Your task to perform on an android device: open sync settings in chrome Image 0: 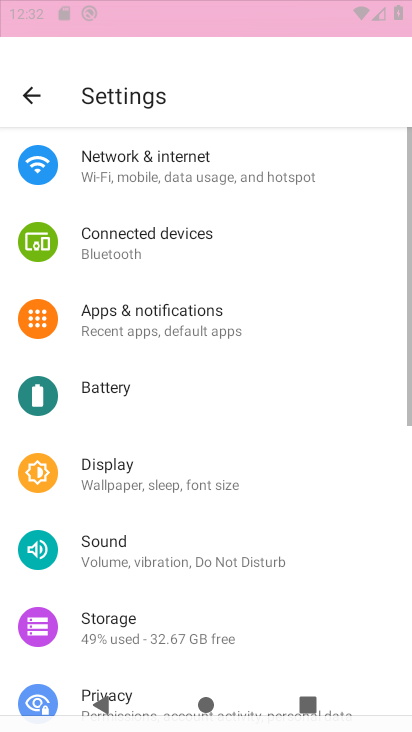
Step 0: drag from (297, 144) to (299, 102)
Your task to perform on an android device: open sync settings in chrome Image 1: 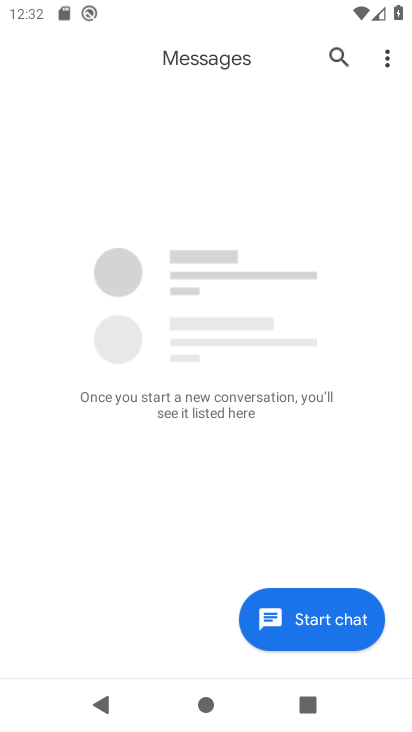
Step 1: press home button
Your task to perform on an android device: open sync settings in chrome Image 2: 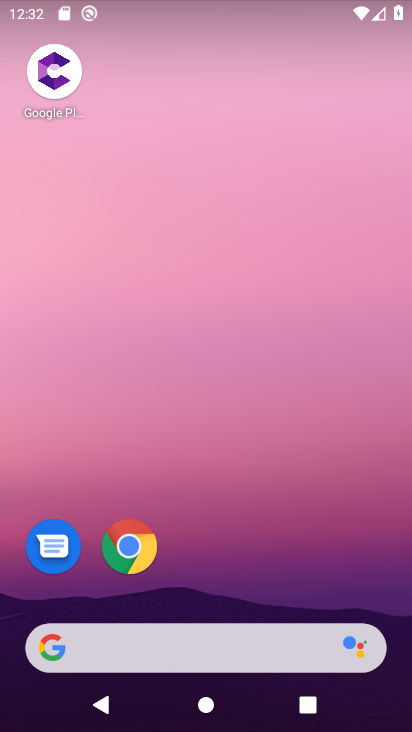
Step 2: drag from (326, 500) to (240, 86)
Your task to perform on an android device: open sync settings in chrome Image 3: 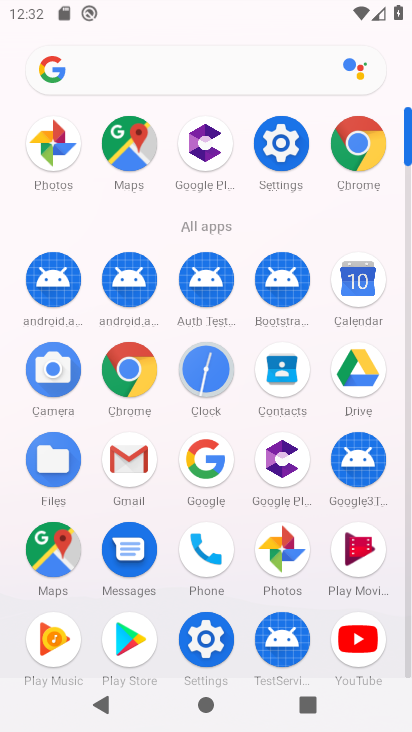
Step 3: click (346, 159)
Your task to perform on an android device: open sync settings in chrome Image 4: 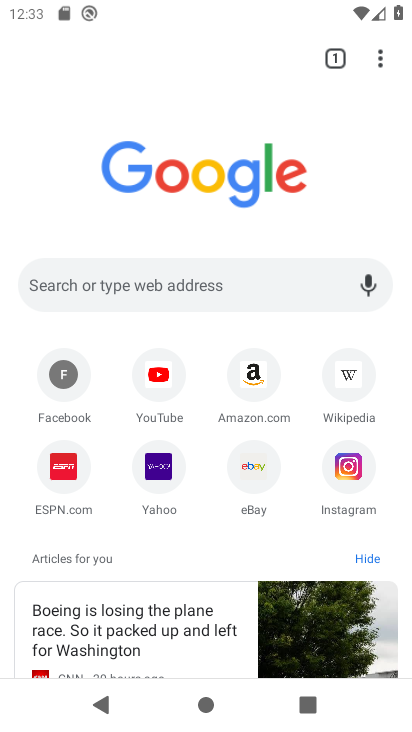
Step 4: drag from (385, 51) to (222, 482)
Your task to perform on an android device: open sync settings in chrome Image 5: 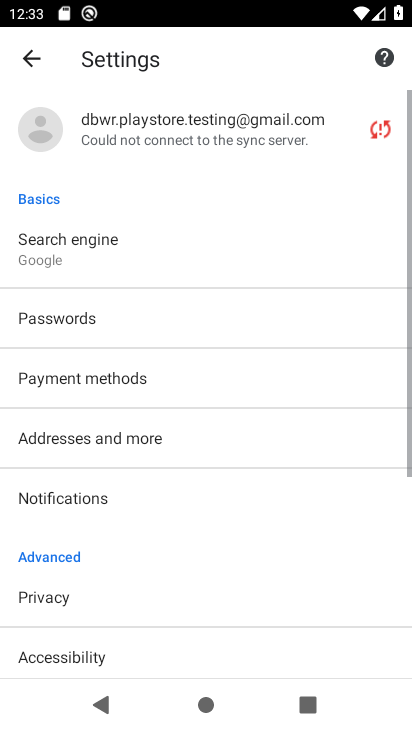
Step 5: click (70, 117)
Your task to perform on an android device: open sync settings in chrome Image 6: 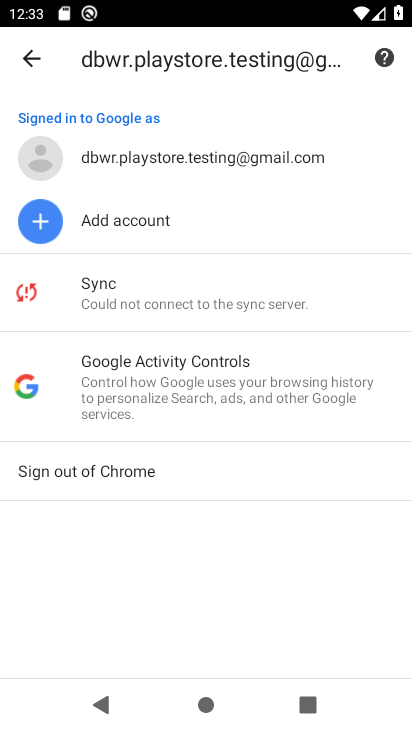
Step 6: click (183, 278)
Your task to perform on an android device: open sync settings in chrome Image 7: 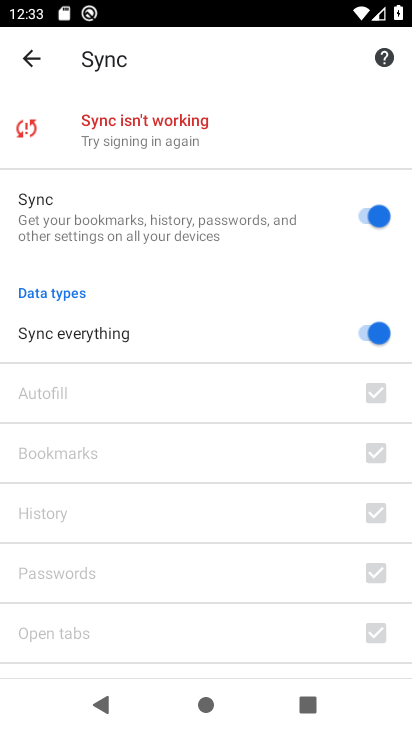
Step 7: task complete